Your task to perform on an android device: open app "Pinterest" Image 0: 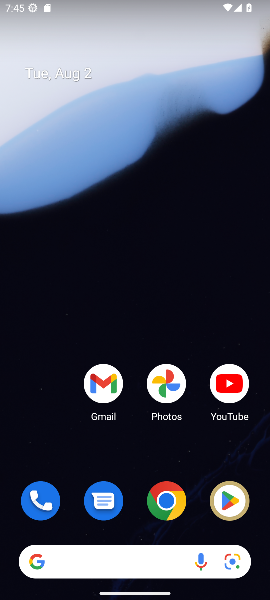
Step 0: drag from (137, 508) to (147, 133)
Your task to perform on an android device: open app "Pinterest" Image 1: 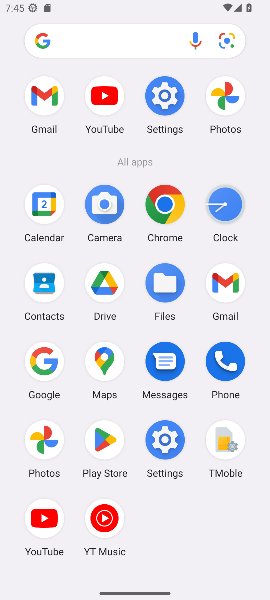
Step 1: click (100, 433)
Your task to perform on an android device: open app "Pinterest" Image 2: 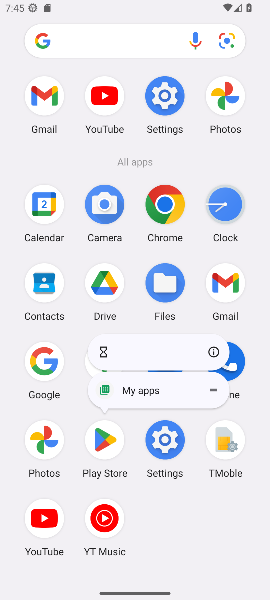
Step 2: click (215, 350)
Your task to perform on an android device: open app "Pinterest" Image 3: 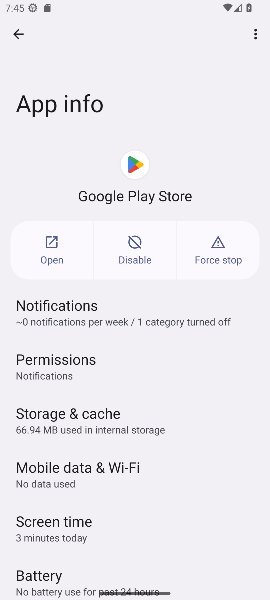
Step 3: click (46, 244)
Your task to perform on an android device: open app "Pinterest" Image 4: 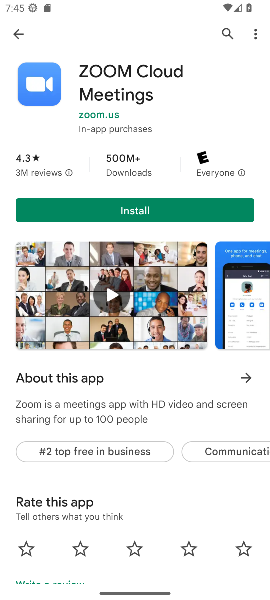
Step 4: click (215, 33)
Your task to perform on an android device: open app "Pinterest" Image 5: 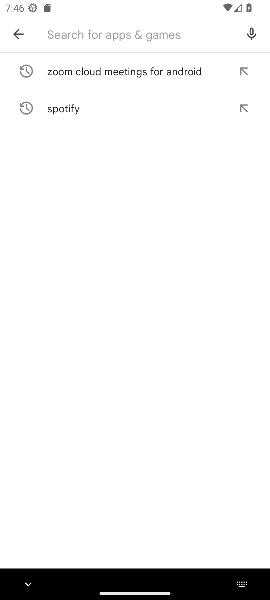
Step 5: type "Pinterest"
Your task to perform on an android device: open app "Pinterest" Image 6: 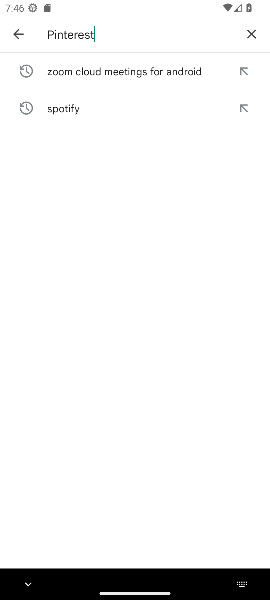
Step 6: type ""
Your task to perform on an android device: open app "Pinterest" Image 7: 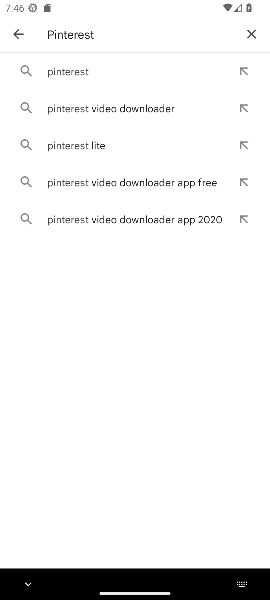
Step 7: click (81, 70)
Your task to perform on an android device: open app "Pinterest" Image 8: 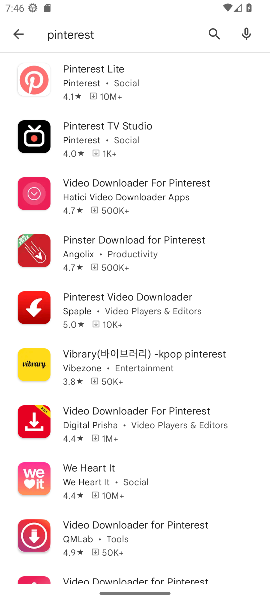
Step 8: click (60, 67)
Your task to perform on an android device: open app "Pinterest" Image 9: 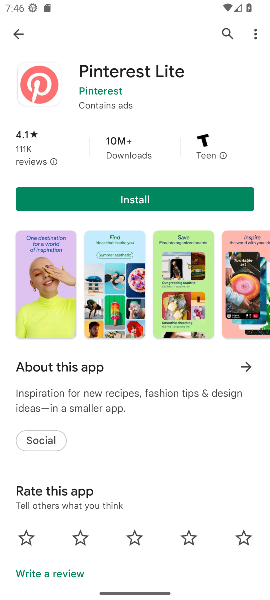
Step 9: task complete